Your task to perform on an android device: toggle pop-ups in chrome Image 0: 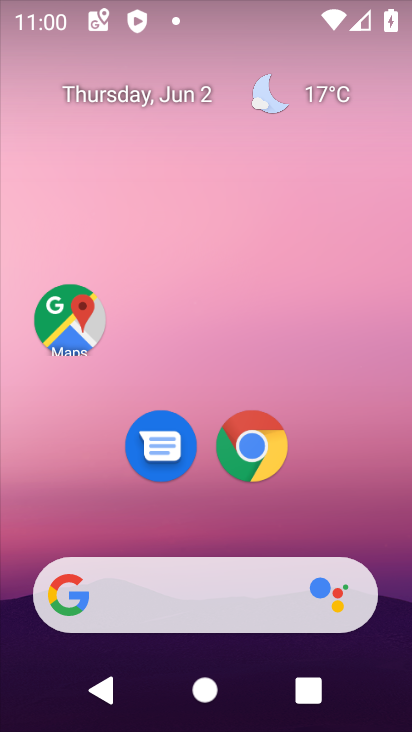
Step 0: drag from (377, 527) to (370, 259)
Your task to perform on an android device: toggle pop-ups in chrome Image 1: 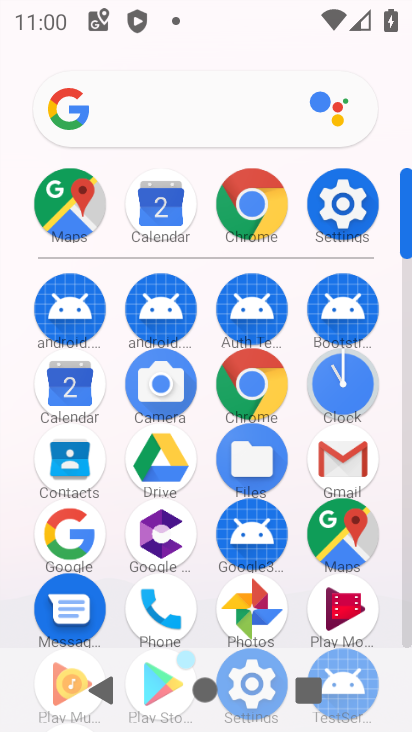
Step 1: click (273, 387)
Your task to perform on an android device: toggle pop-ups in chrome Image 2: 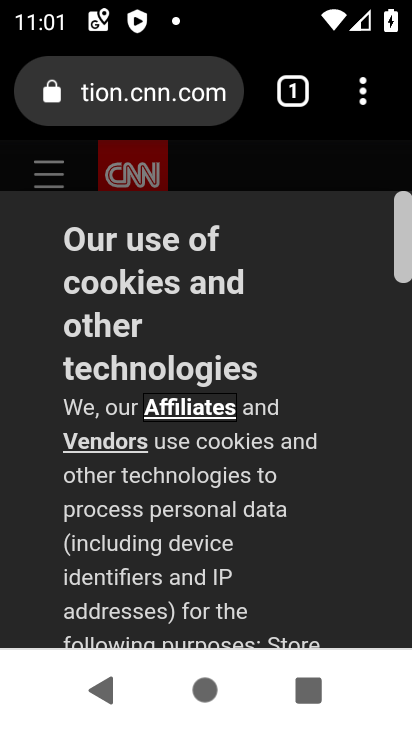
Step 2: click (364, 105)
Your task to perform on an android device: toggle pop-ups in chrome Image 3: 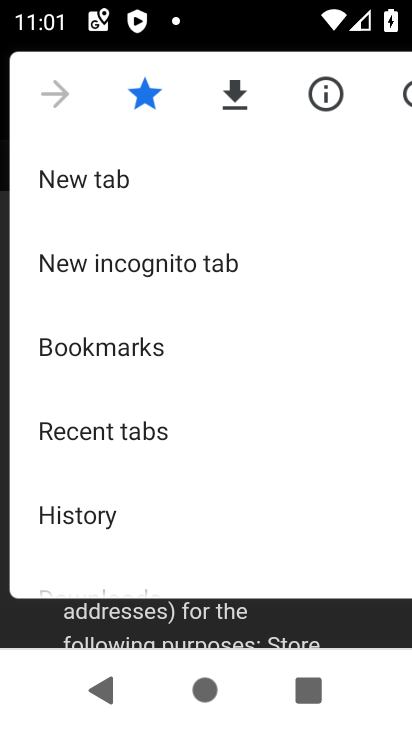
Step 3: drag from (350, 438) to (347, 323)
Your task to perform on an android device: toggle pop-ups in chrome Image 4: 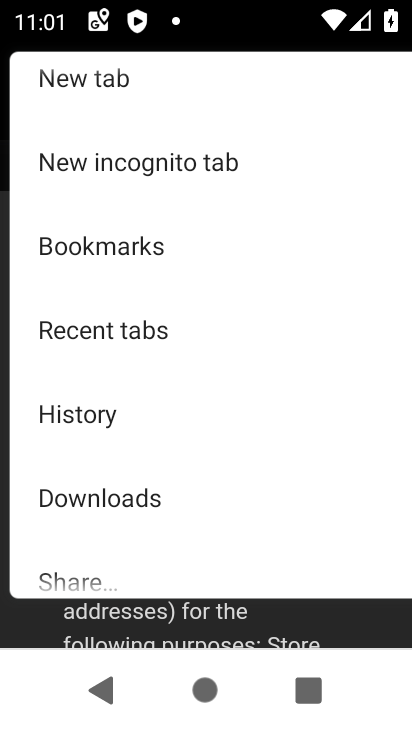
Step 4: drag from (332, 457) to (335, 165)
Your task to perform on an android device: toggle pop-ups in chrome Image 5: 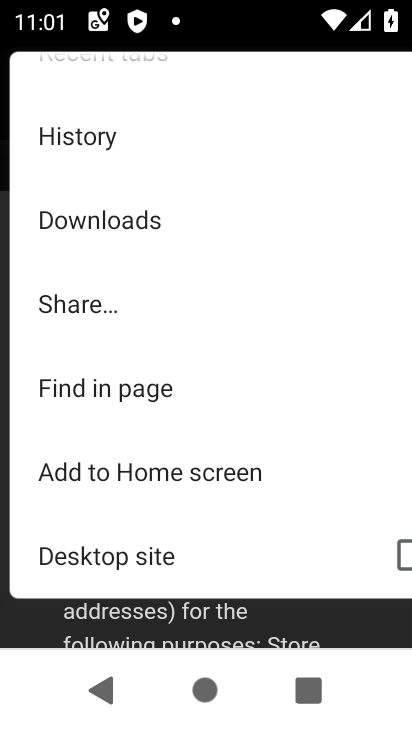
Step 5: drag from (342, 355) to (349, 191)
Your task to perform on an android device: toggle pop-ups in chrome Image 6: 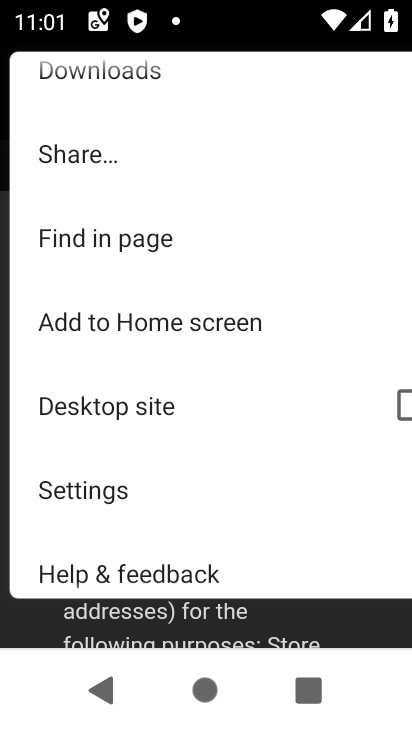
Step 6: drag from (306, 417) to (305, 272)
Your task to perform on an android device: toggle pop-ups in chrome Image 7: 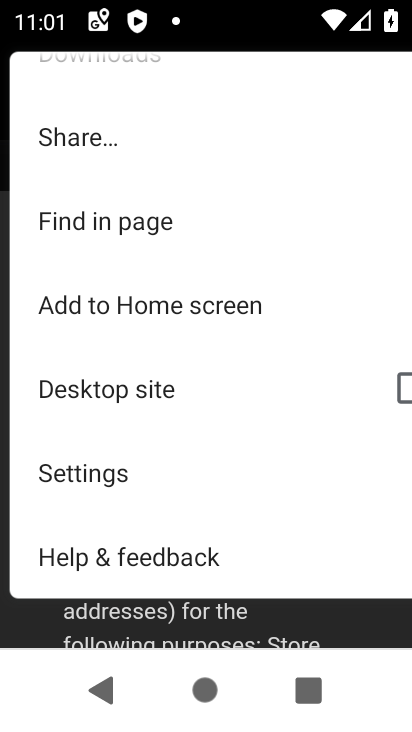
Step 7: click (168, 485)
Your task to perform on an android device: toggle pop-ups in chrome Image 8: 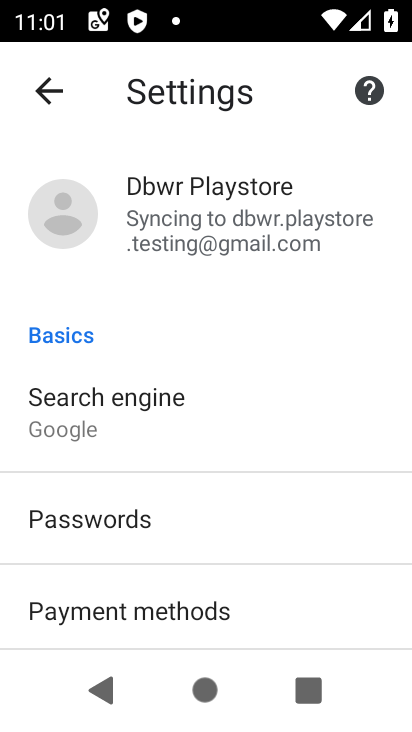
Step 8: drag from (347, 500) to (352, 383)
Your task to perform on an android device: toggle pop-ups in chrome Image 9: 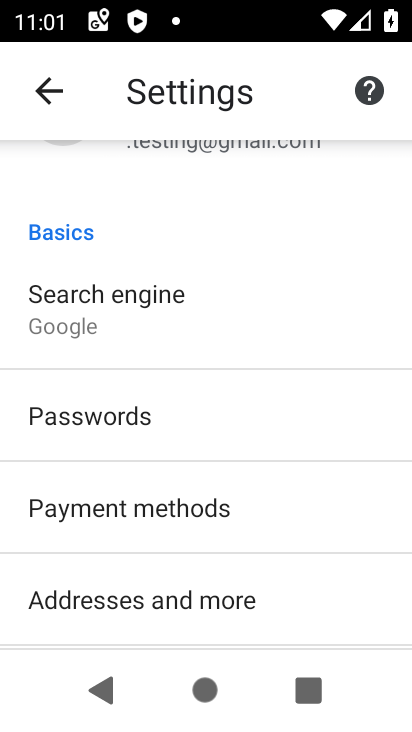
Step 9: drag from (355, 530) to (315, 330)
Your task to perform on an android device: toggle pop-ups in chrome Image 10: 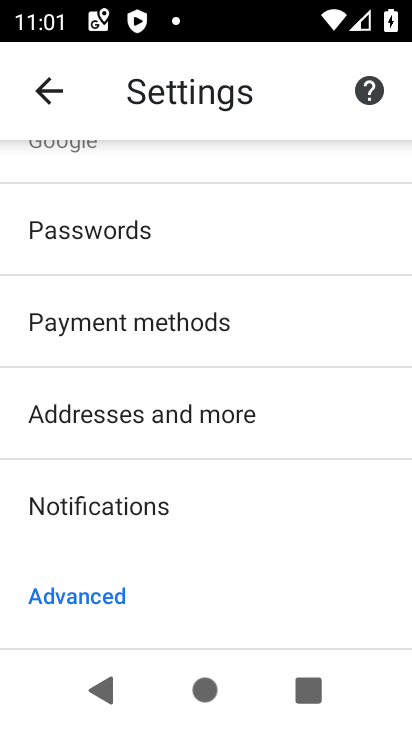
Step 10: drag from (316, 543) to (325, 416)
Your task to perform on an android device: toggle pop-ups in chrome Image 11: 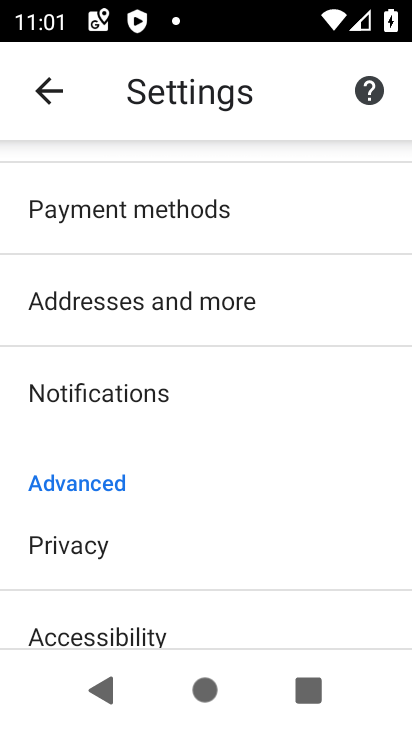
Step 11: drag from (332, 563) to (336, 416)
Your task to perform on an android device: toggle pop-ups in chrome Image 12: 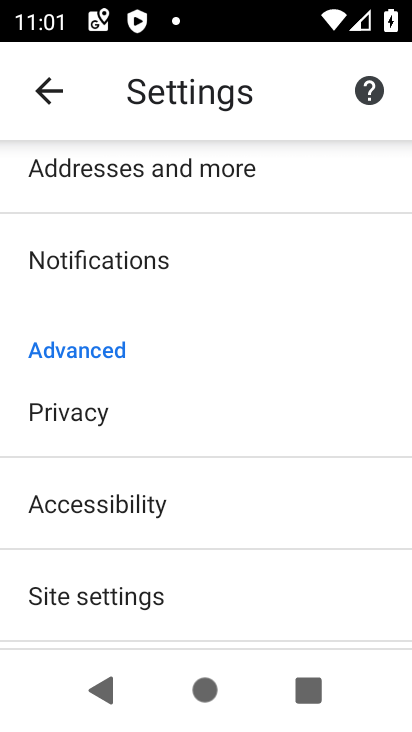
Step 12: drag from (341, 460) to (345, 251)
Your task to perform on an android device: toggle pop-ups in chrome Image 13: 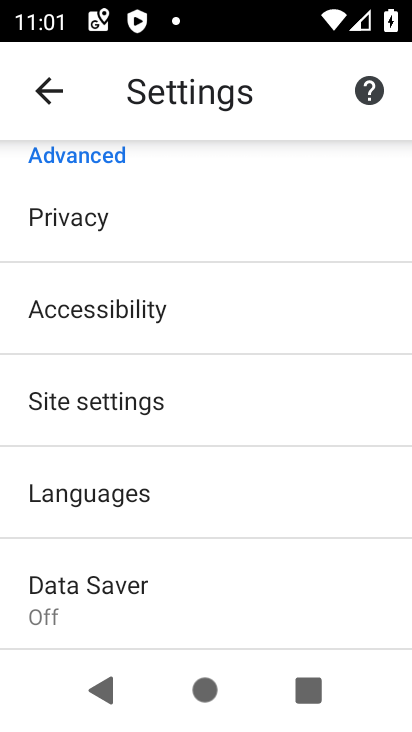
Step 13: click (303, 410)
Your task to perform on an android device: toggle pop-ups in chrome Image 14: 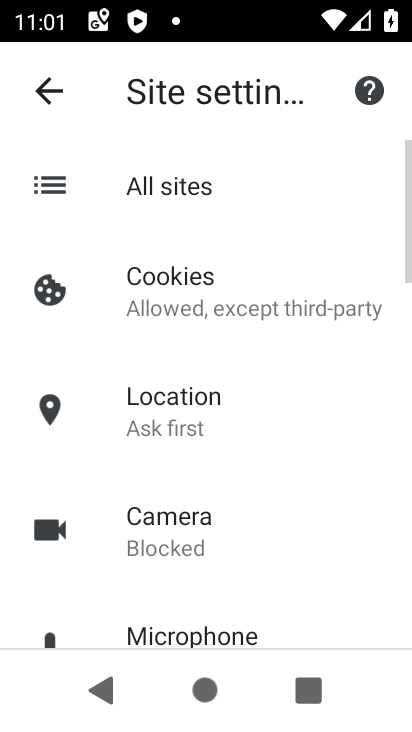
Step 14: drag from (341, 508) to (344, 392)
Your task to perform on an android device: toggle pop-ups in chrome Image 15: 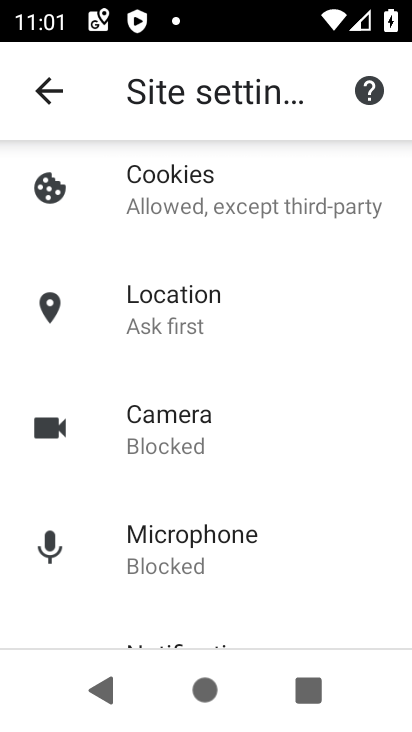
Step 15: drag from (327, 502) to (340, 399)
Your task to perform on an android device: toggle pop-ups in chrome Image 16: 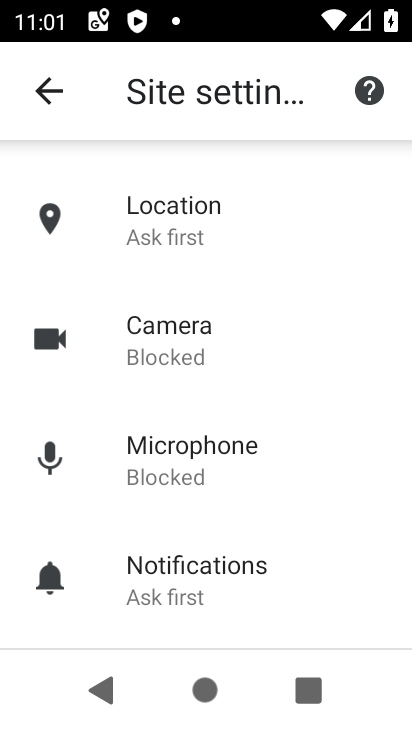
Step 16: drag from (347, 507) to (344, 398)
Your task to perform on an android device: toggle pop-ups in chrome Image 17: 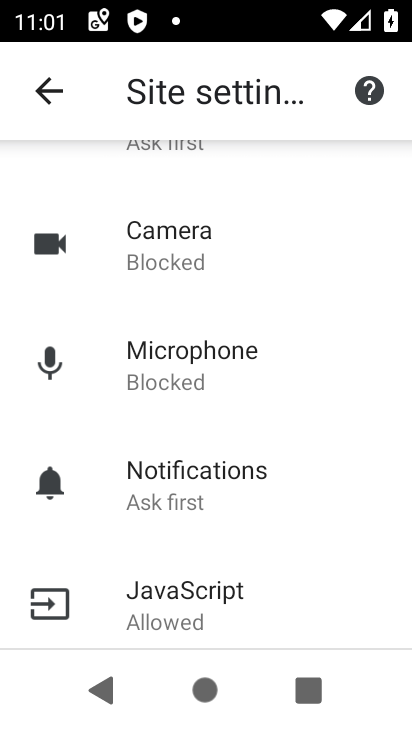
Step 17: drag from (340, 487) to (344, 358)
Your task to perform on an android device: toggle pop-ups in chrome Image 18: 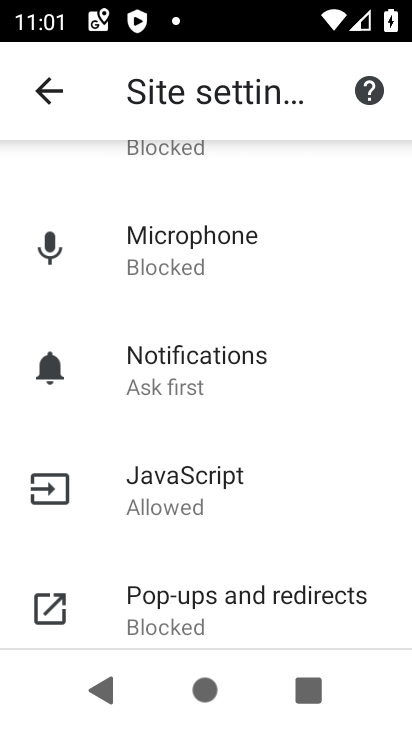
Step 18: drag from (360, 493) to (360, 366)
Your task to perform on an android device: toggle pop-ups in chrome Image 19: 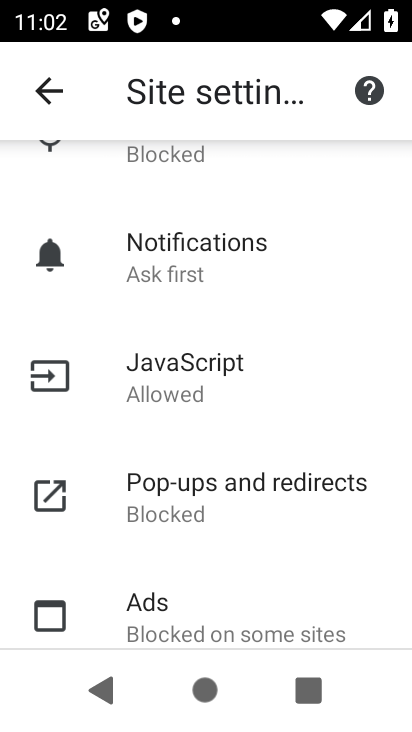
Step 19: drag from (358, 419) to (341, 250)
Your task to perform on an android device: toggle pop-ups in chrome Image 20: 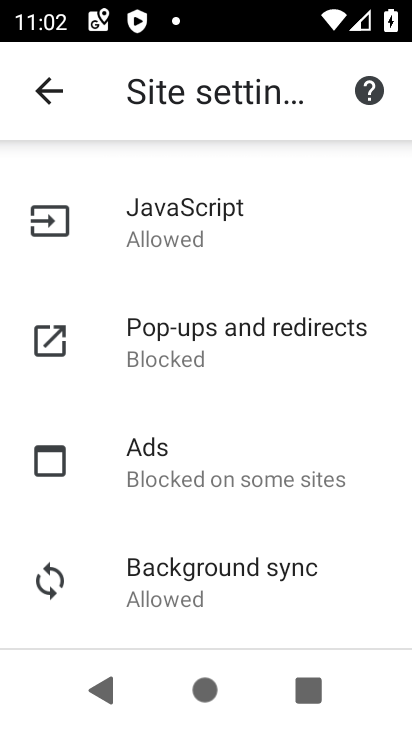
Step 20: click (259, 345)
Your task to perform on an android device: toggle pop-ups in chrome Image 21: 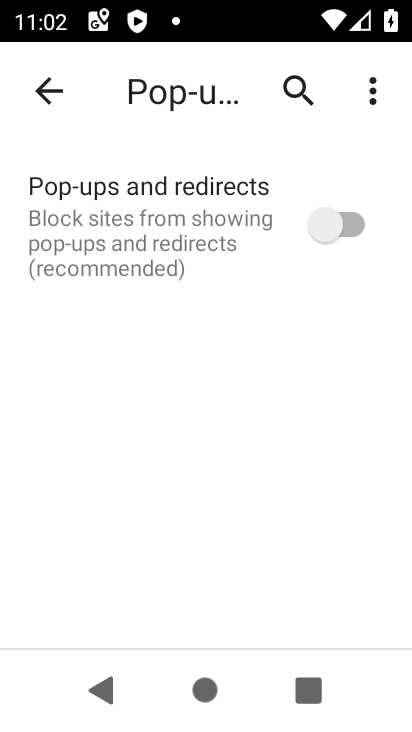
Step 21: click (333, 234)
Your task to perform on an android device: toggle pop-ups in chrome Image 22: 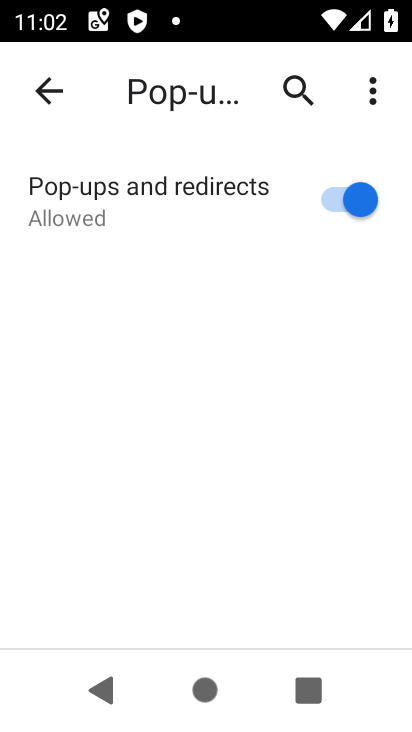
Step 22: task complete